Your task to perform on an android device: Open display settings Image 0: 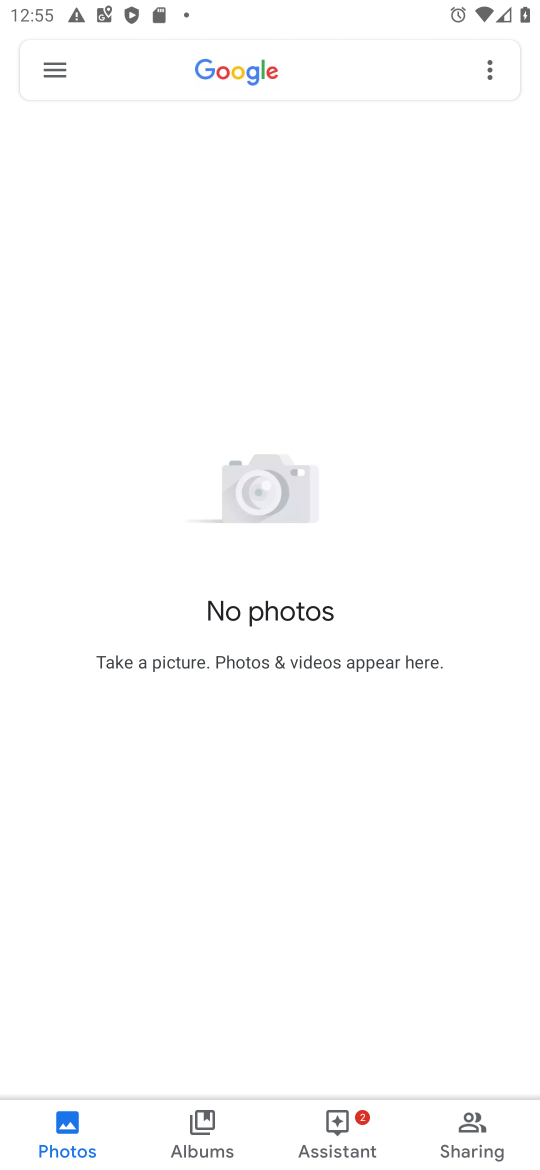
Step 0: press home button
Your task to perform on an android device: Open display settings Image 1: 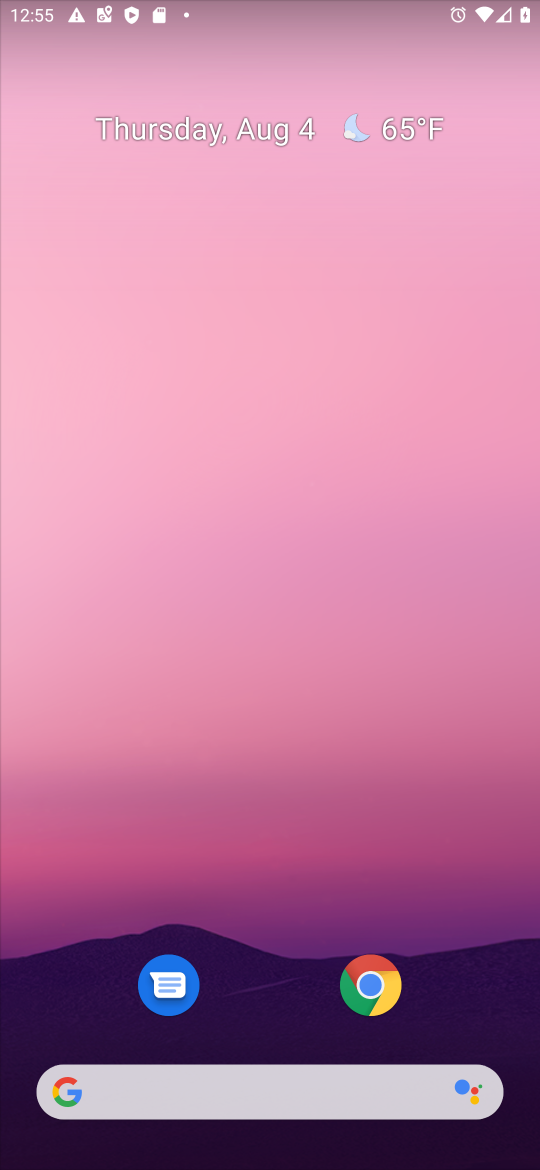
Step 1: drag from (271, 544) to (297, 180)
Your task to perform on an android device: Open display settings Image 2: 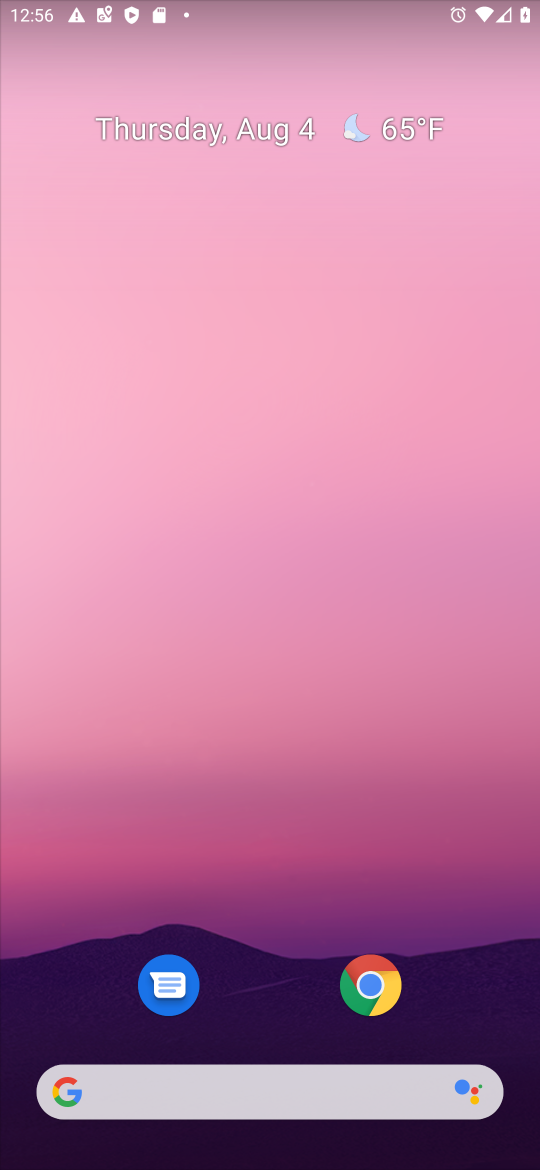
Step 2: drag from (278, 1016) to (151, 280)
Your task to perform on an android device: Open display settings Image 3: 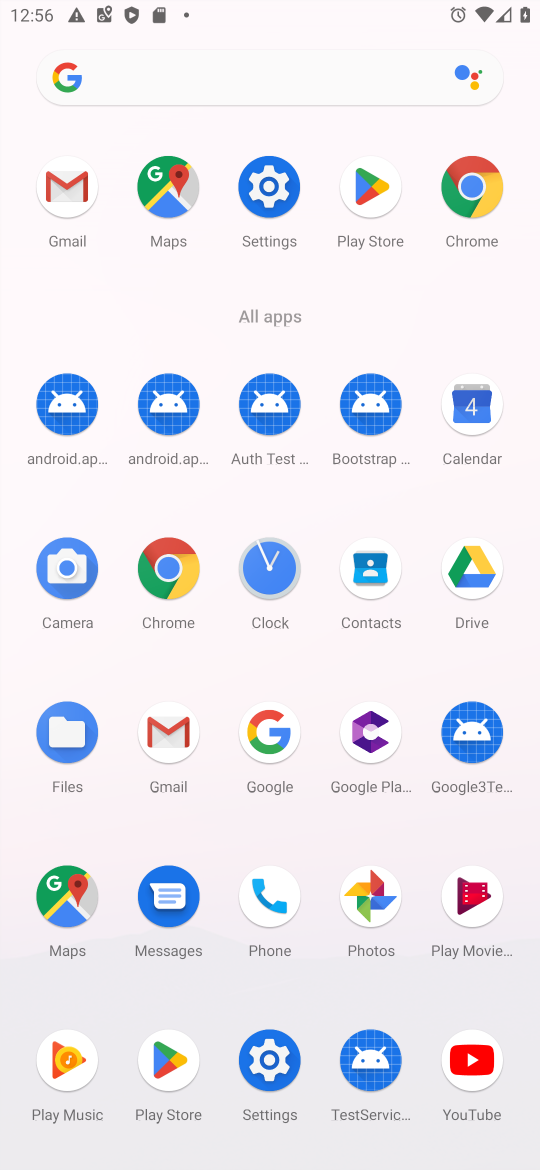
Step 3: click (270, 183)
Your task to perform on an android device: Open display settings Image 4: 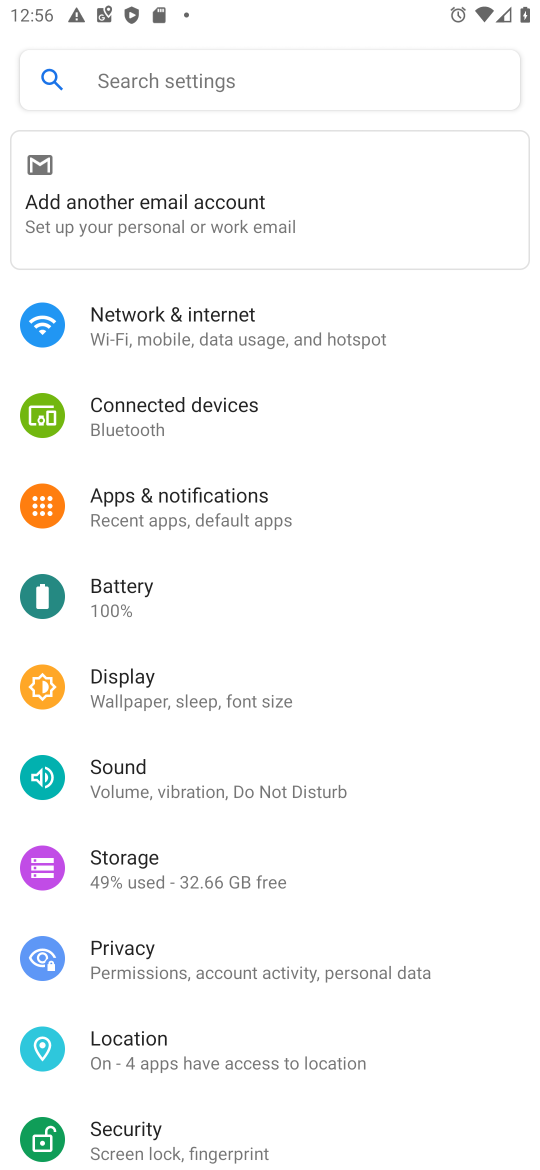
Step 4: click (126, 675)
Your task to perform on an android device: Open display settings Image 5: 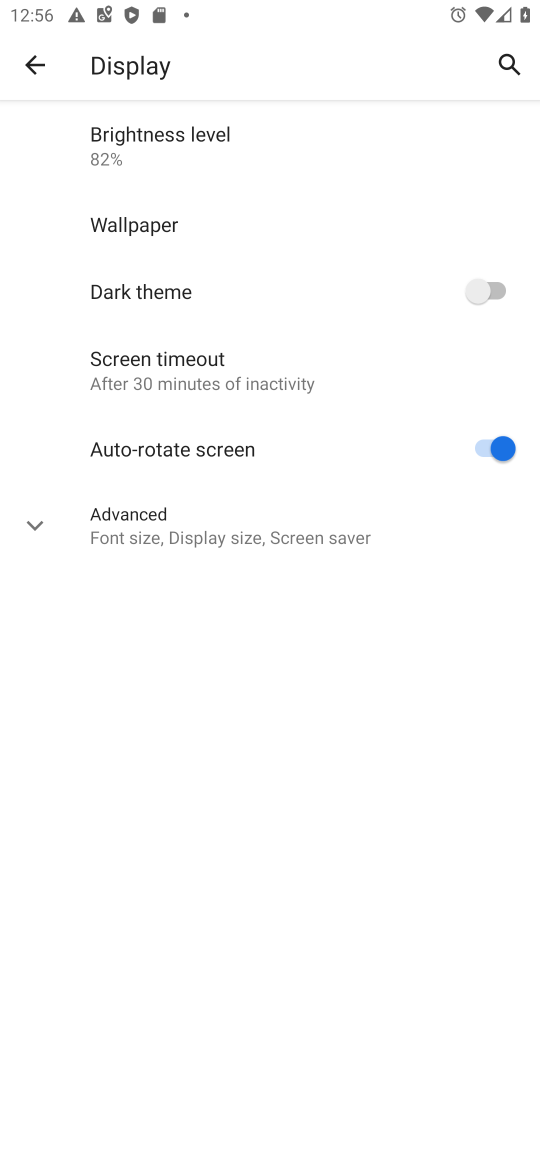
Step 5: task complete